Your task to perform on an android device: turn off translation in the chrome app Image 0: 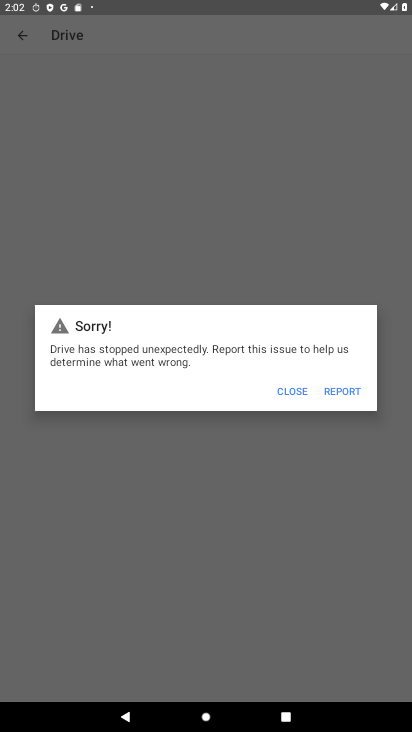
Step 0: press home button
Your task to perform on an android device: turn off translation in the chrome app Image 1: 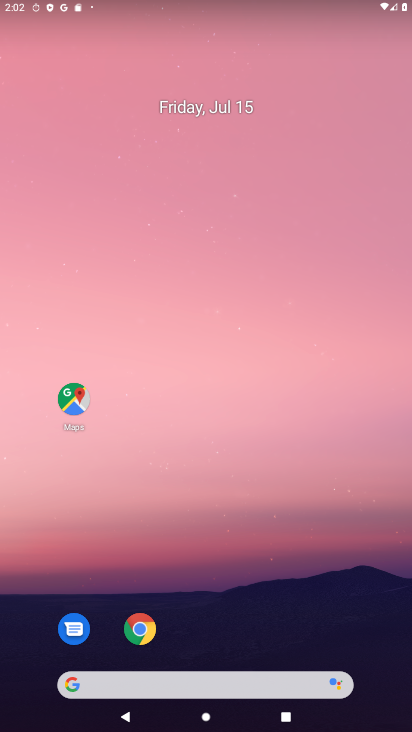
Step 1: click (142, 627)
Your task to perform on an android device: turn off translation in the chrome app Image 2: 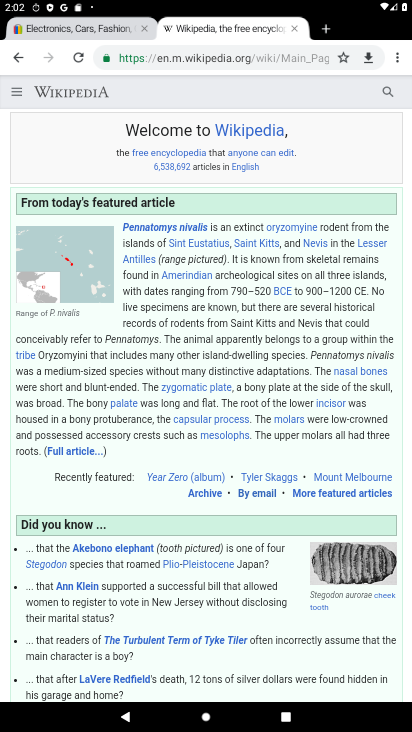
Step 2: click (396, 60)
Your task to perform on an android device: turn off translation in the chrome app Image 3: 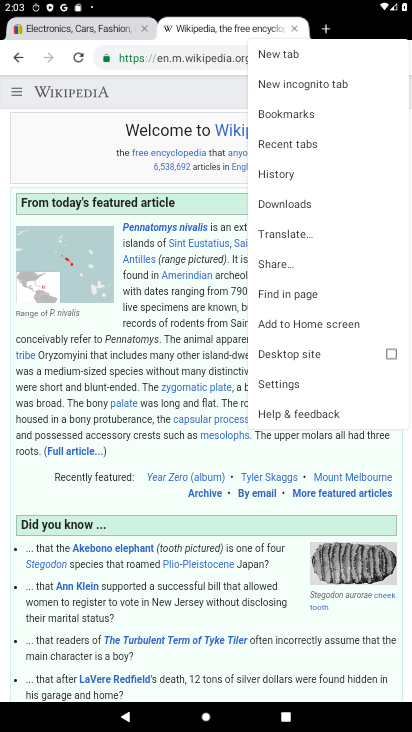
Step 3: click (279, 379)
Your task to perform on an android device: turn off translation in the chrome app Image 4: 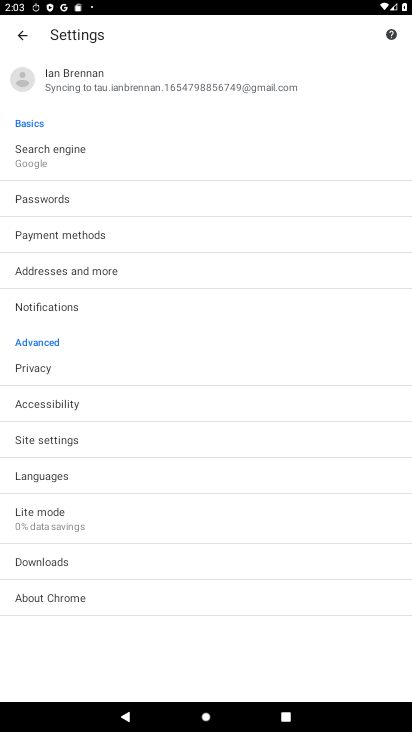
Step 4: click (51, 487)
Your task to perform on an android device: turn off translation in the chrome app Image 5: 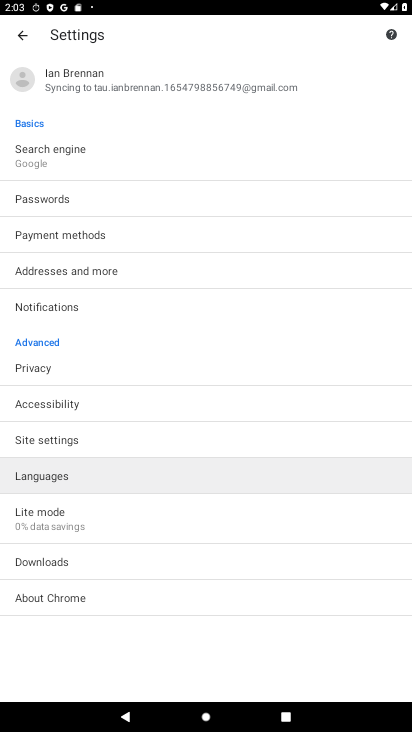
Step 5: click (39, 473)
Your task to perform on an android device: turn off translation in the chrome app Image 6: 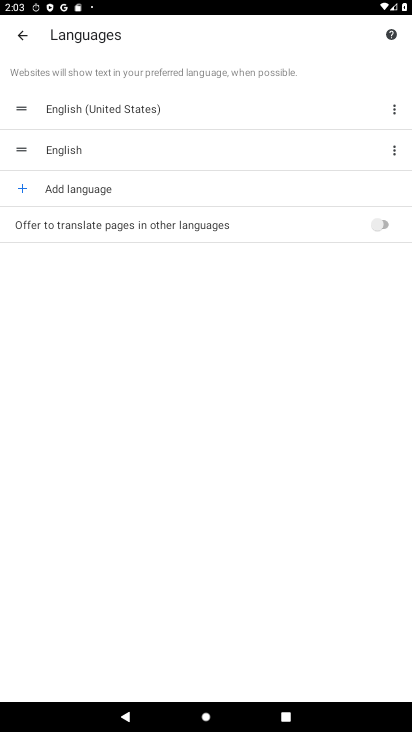
Step 6: task complete